Your task to perform on an android device: toggle improve location accuracy Image 0: 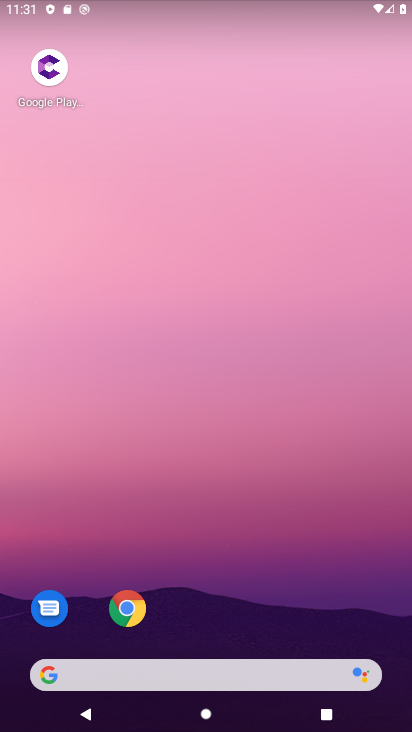
Step 0: drag from (131, 715) to (246, 91)
Your task to perform on an android device: toggle improve location accuracy Image 1: 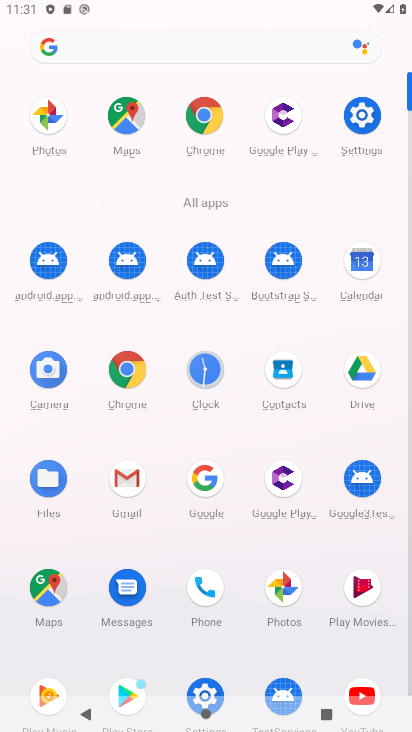
Step 1: click (367, 122)
Your task to perform on an android device: toggle improve location accuracy Image 2: 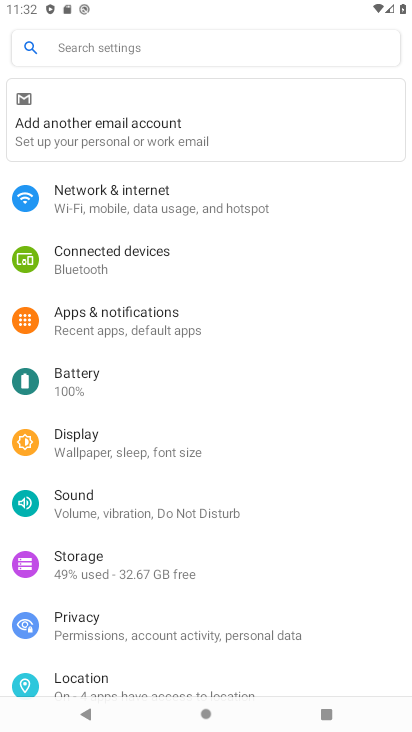
Step 2: drag from (246, 616) to (316, 153)
Your task to perform on an android device: toggle improve location accuracy Image 3: 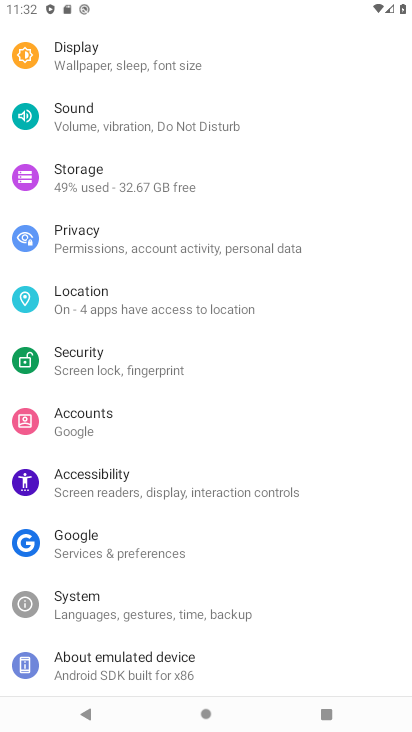
Step 3: click (95, 301)
Your task to perform on an android device: toggle improve location accuracy Image 4: 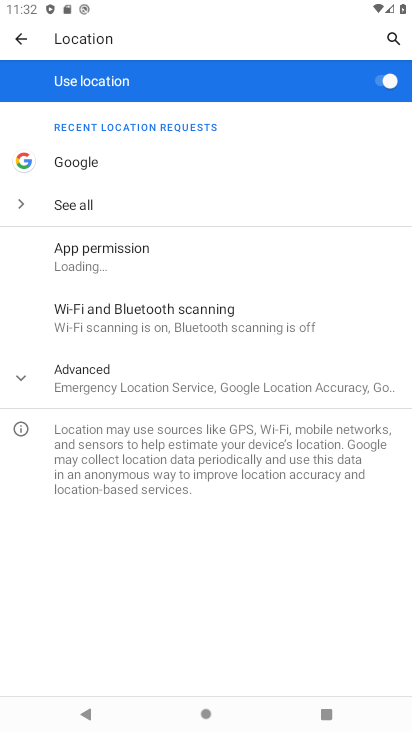
Step 4: click (173, 380)
Your task to perform on an android device: toggle improve location accuracy Image 5: 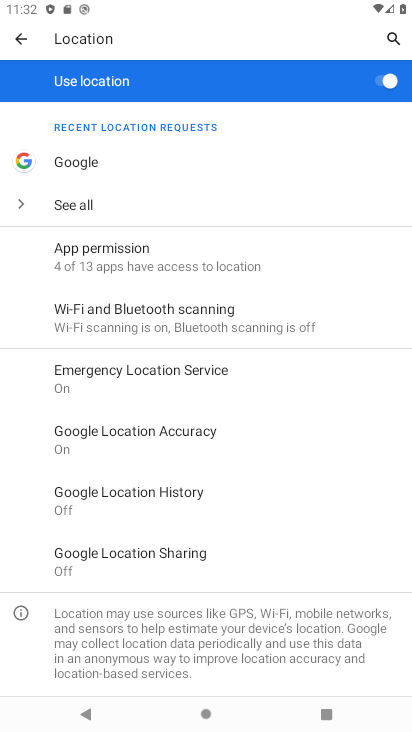
Step 5: click (146, 438)
Your task to perform on an android device: toggle improve location accuracy Image 6: 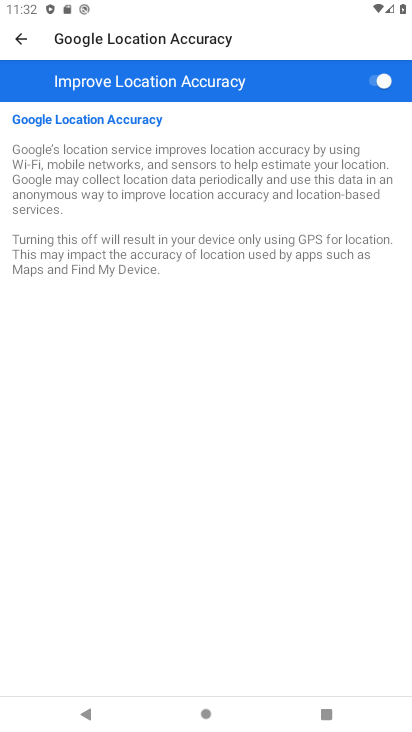
Step 6: click (380, 84)
Your task to perform on an android device: toggle improve location accuracy Image 7: 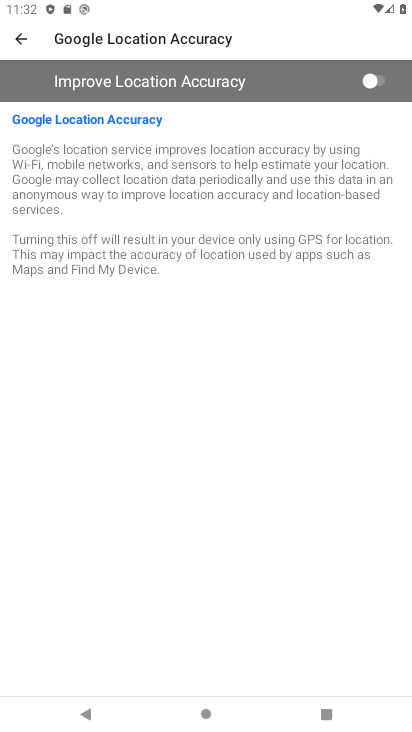
Step 7: task complete